Your task to perform on an android device: turn on improve location accuracy Image 0: 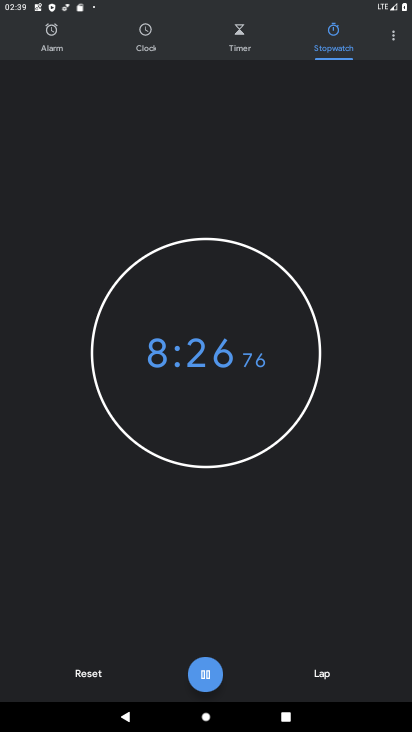
Step 0: press home button
Your task to perform on an android device: turn on improve location accuracy Image 1: 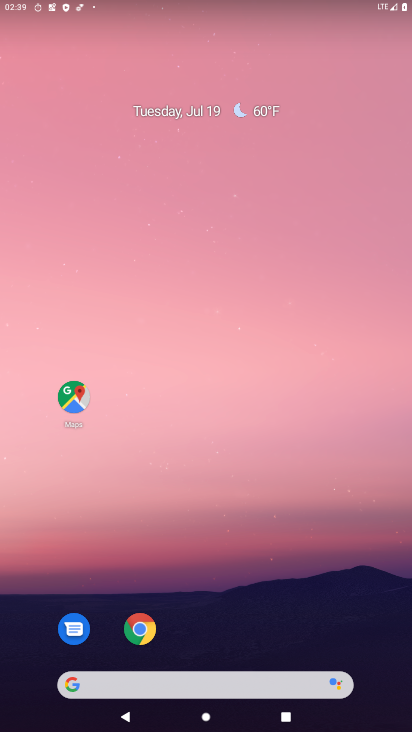
Step 1: drag from (252, 207) to (254, 31)
Your task to perform on an android device: turn on improve location accuracy Image 2: 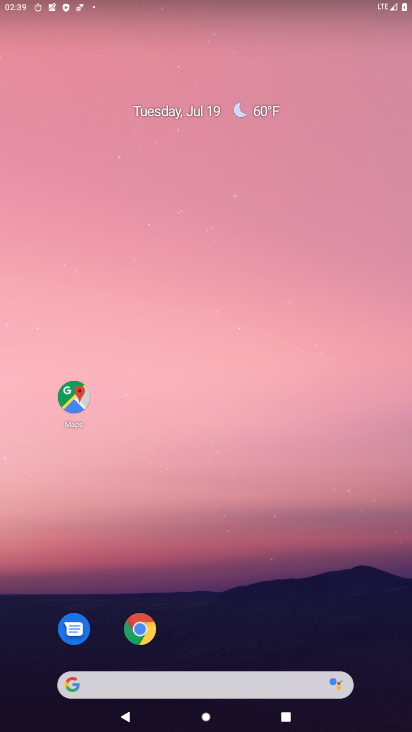
Step 2: drag from (204, 622) to (225, 157)
Your task to perform on an android device: turn on improve location accuracy Image 3: 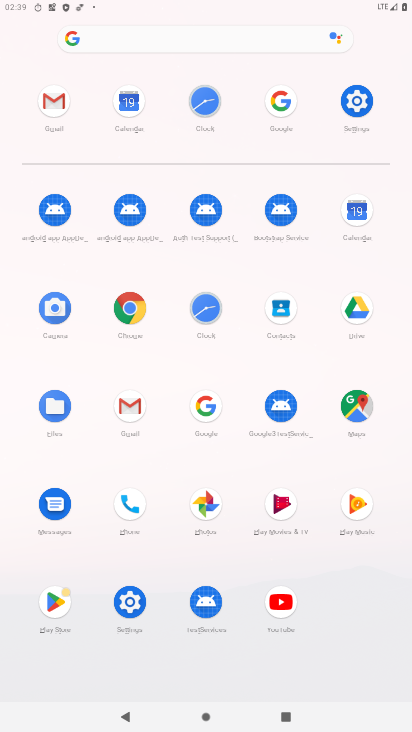
Step 3: click (348, 107)
Your task to perform on an android device: turn on improve location accuracy Image 4: 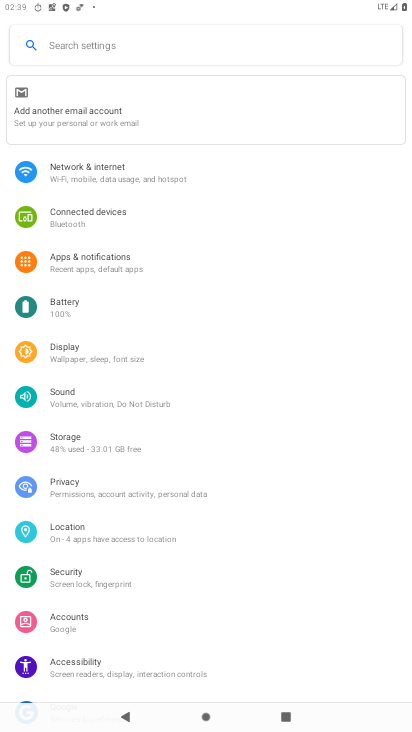
Step 4: click (105, 533)
Your task to perform on an android device: turn on improve location accuracy Image 5: 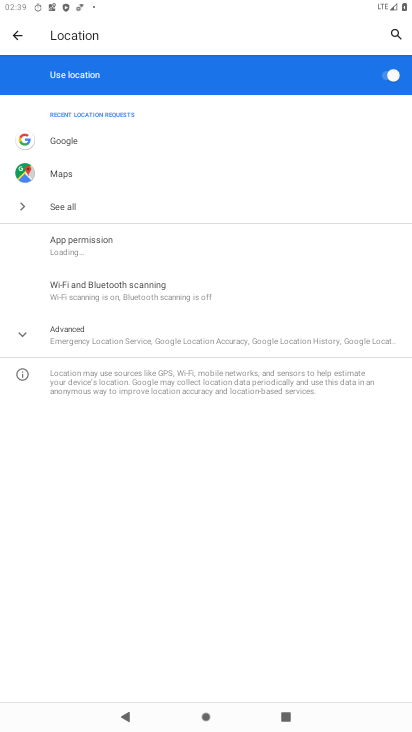
Step 5: click (95, 328)
Your task to perform on an android device: turn on improve location accuracy Image 6: 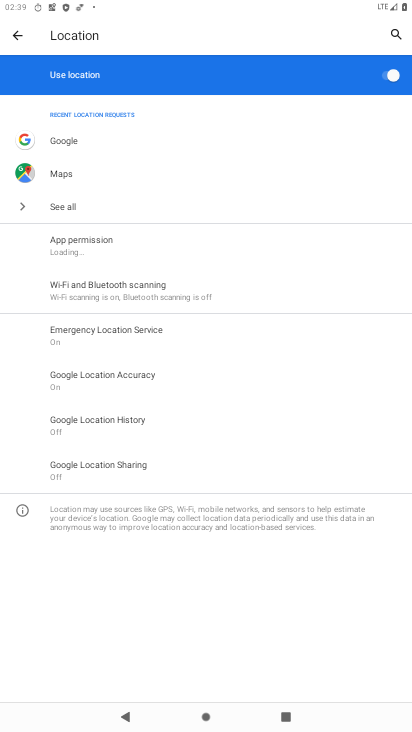
Step 6: click (165, 384)
Your task to perform on an android device: turn on improve location accuracy Image 7: 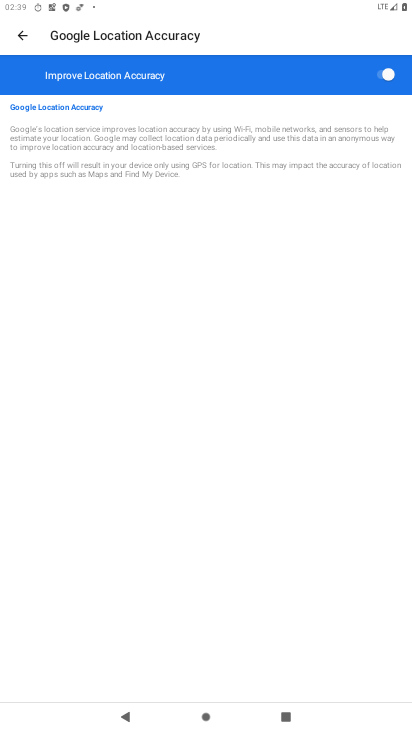
Step 7: task complete